Your task to perform on an android device: When is my next appointment? Image 0: 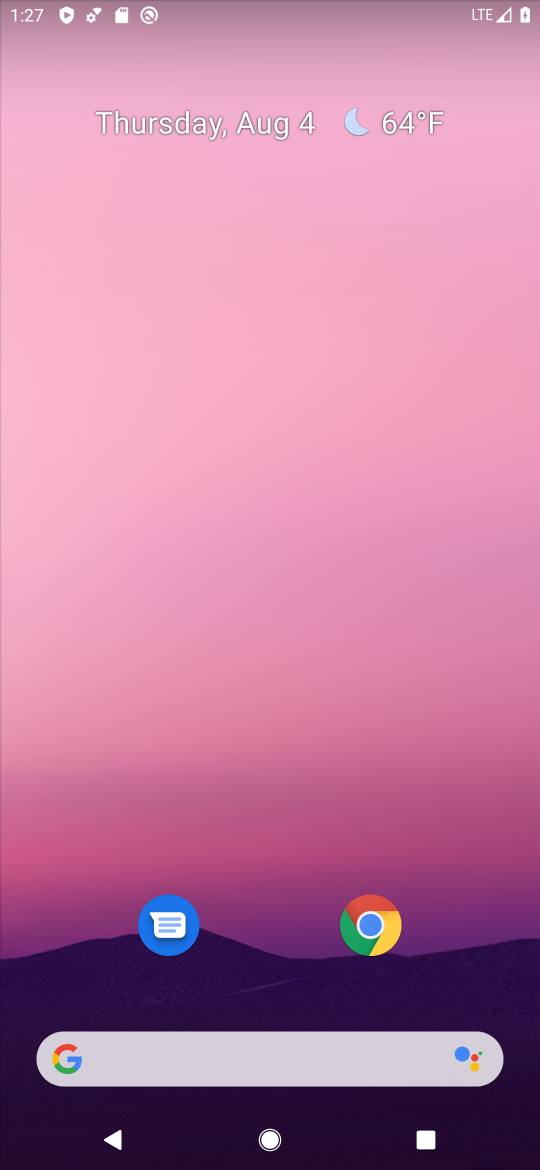
Step 0: drag from (293, 882) to (336, 303)
Your task to perform on an android device: When is my next appointment? Image 1: 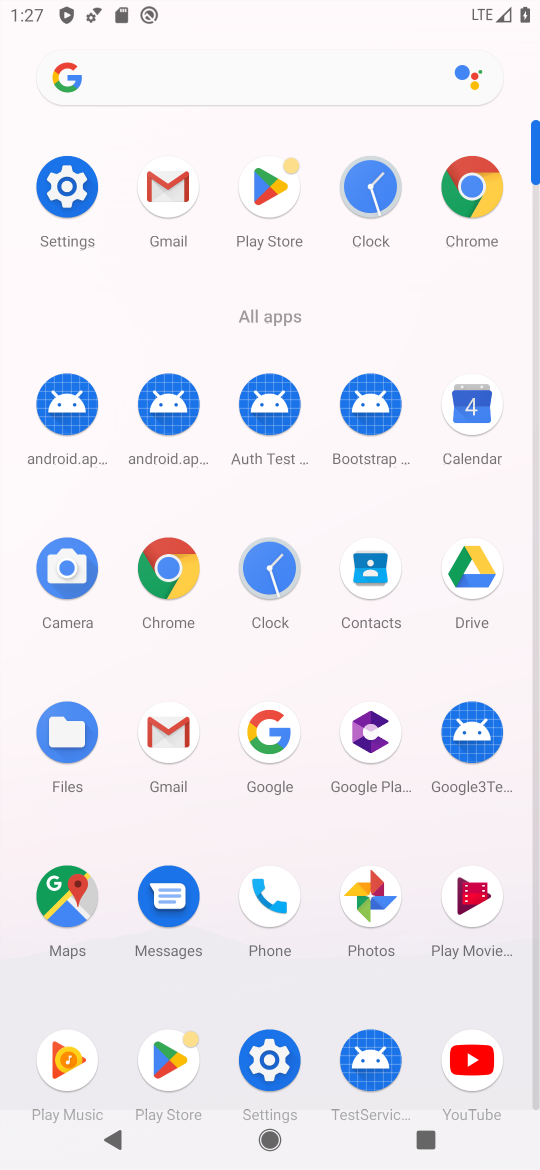
Step 1: click (364, 595)
Your task to perform on an android device: When is my next appointment? Image 2: 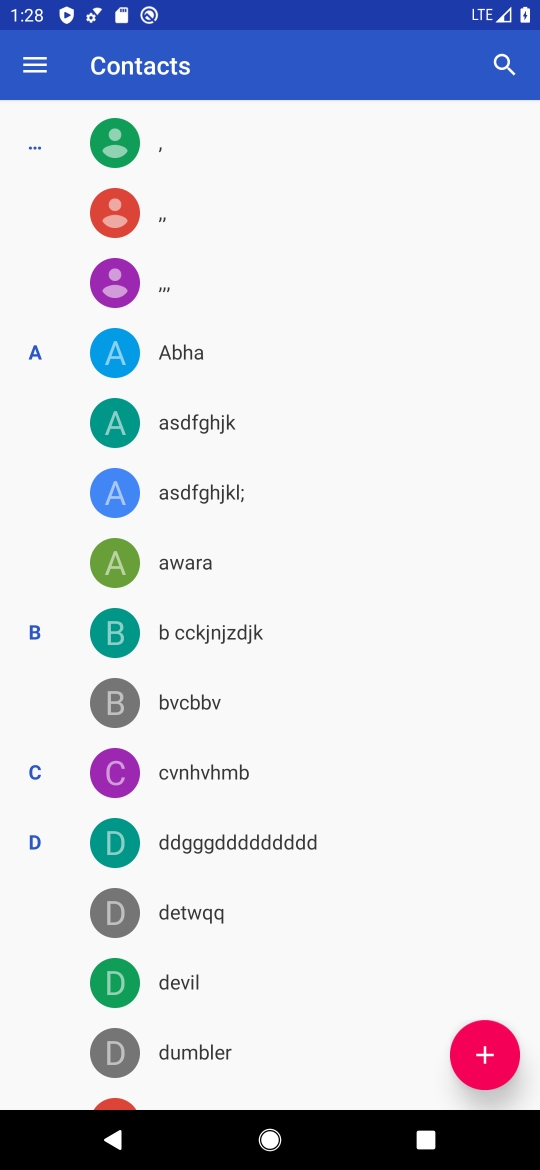
Step 2: task complete